Your task to perform on an android device: clear history in the chrome app Image 0: 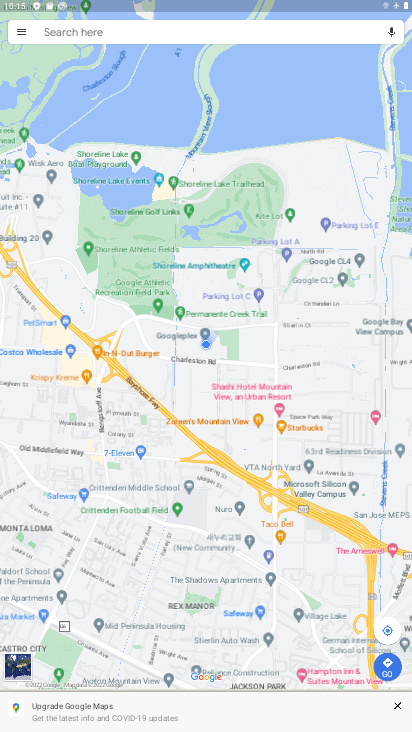
Step 0: press home button
Your task to perform on an android device: clear history in the chrome app Image 1: 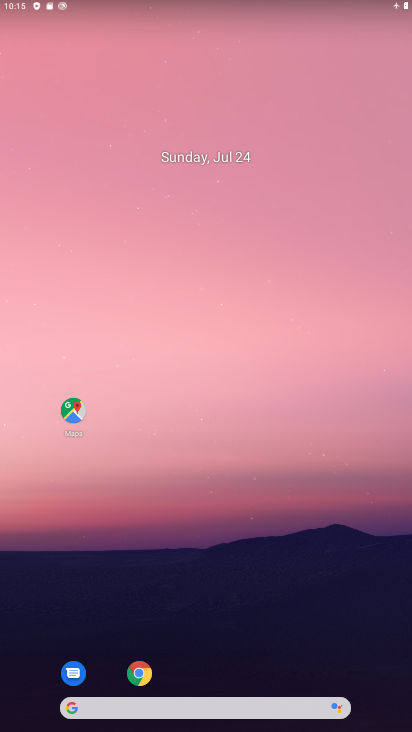
Step 1: click (143, 679)
Your task to perform on an android device: clear history in the chrome app Image 2: 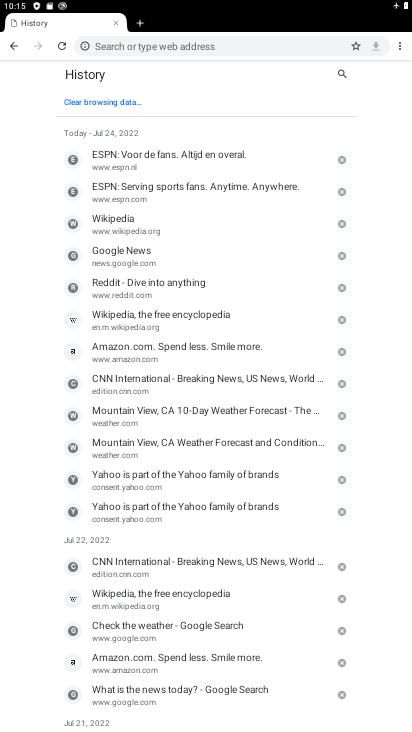
Step 2: click (99, 99)
Your task to perform on an android device: clear history in the chrome app Image 3: 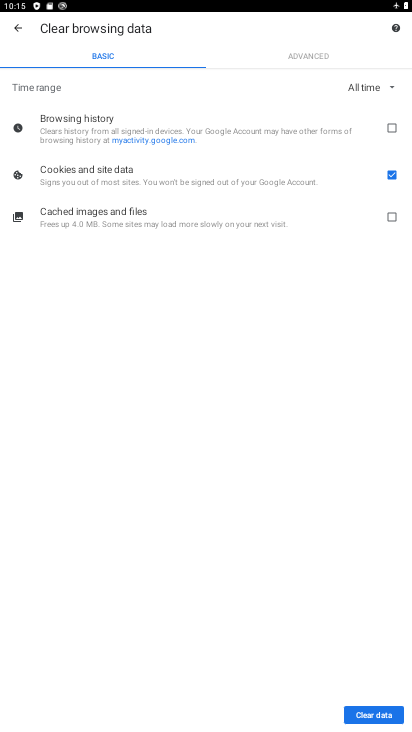
Step 3: click (388, 128)
Your task to perform on an android device: clear history in the chrome app Image 4: 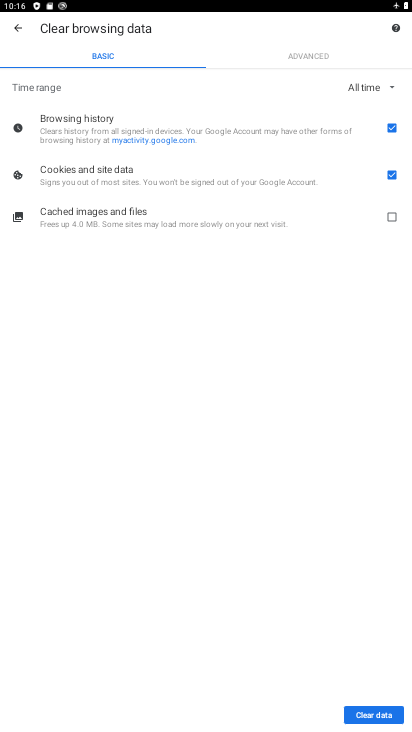
Step 4: click (389, 169)
Your task to perform on an android device: clear history in the chrome app Image 5: 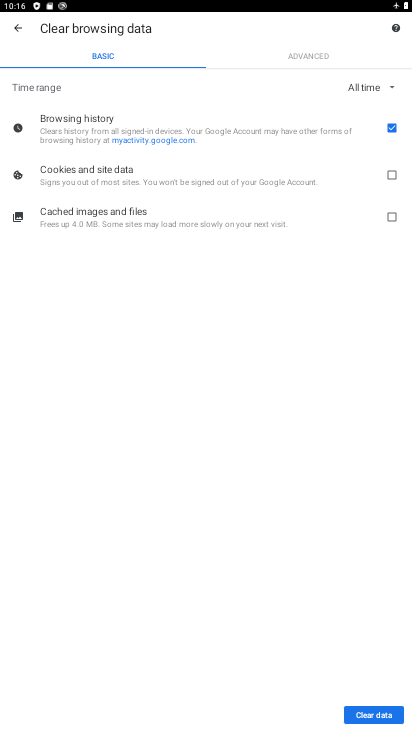
Step 5: click (364, 711)
Your task to perform on an android device: clear history in the chrome app Image 6: 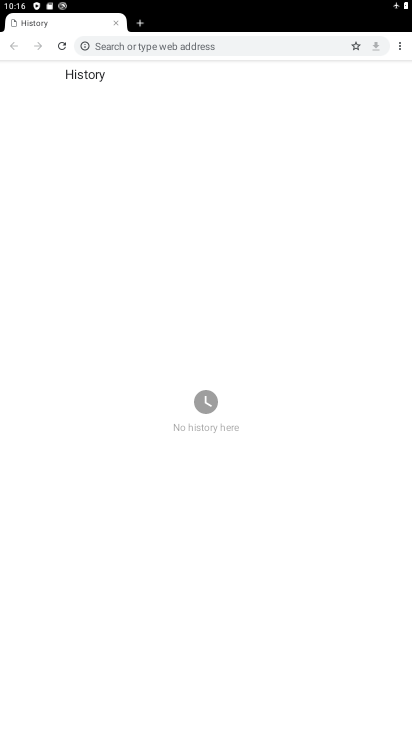
Step 6: task complete